Your task to perform on an android device: Open Yahoo.com Image 0: 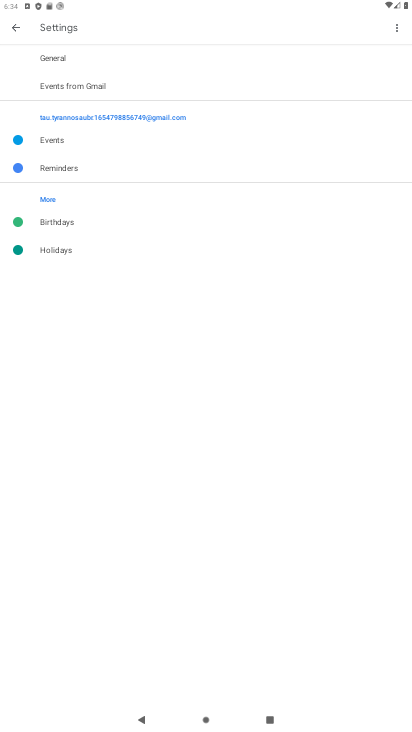
Step 0: press home button
Your task to perform on an android device: Open Yahoo.com Image 1: 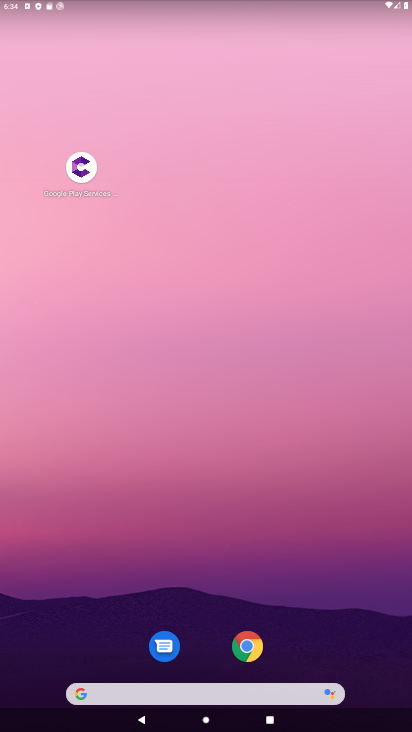
Step 1: drag from (368, 641) to (226, 94)
Your task to perform on an android device: Open Yahoo.com Image 2: 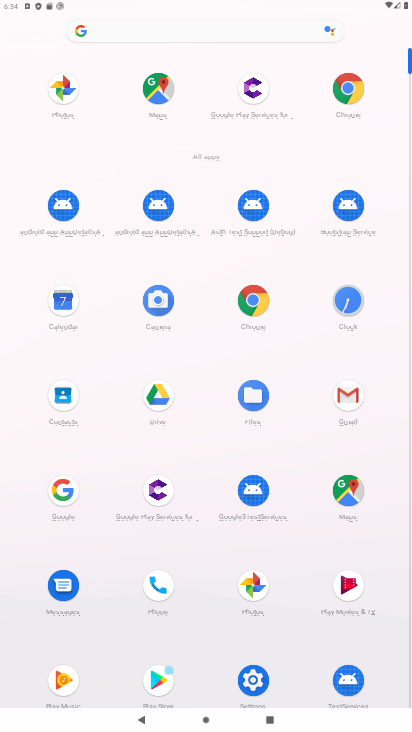
Step 2: click (53, 497)
Your task to perform on an android device: Open Yahoo.com Image 3: 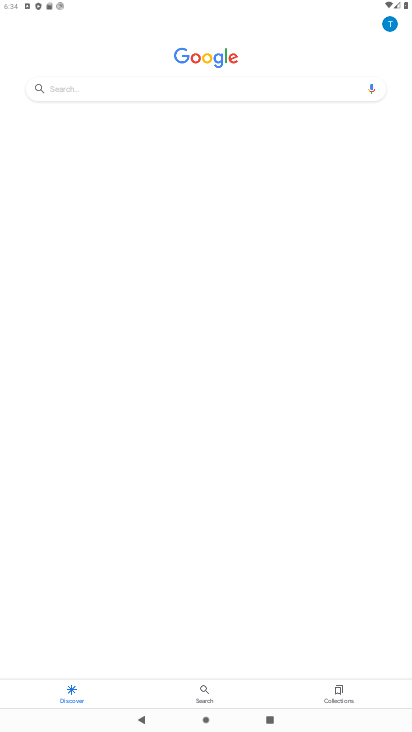
Step 3: click (141, 88)
Your task to perform on an android device: Open Yahoo.com Image 4: 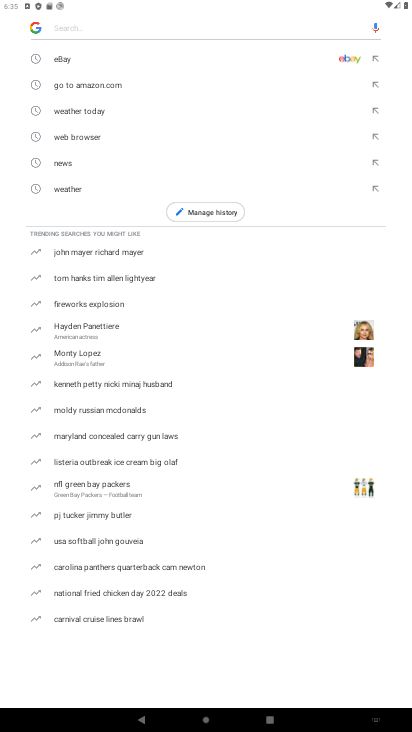
Step 4: type "Yahoo.com"
Your task to perform on an android device: Open Yahoo.com Image 5: 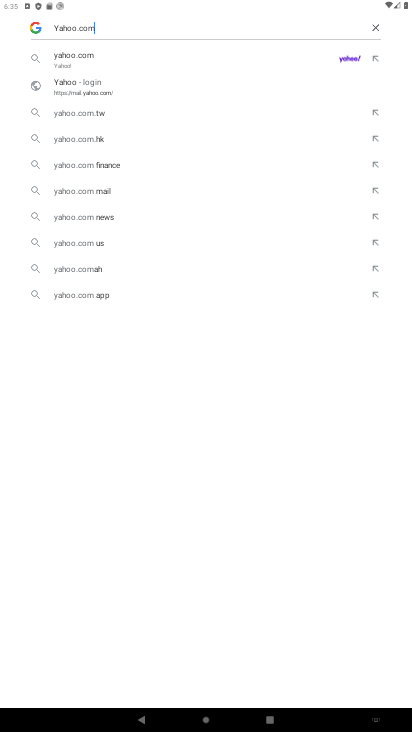
Step 5: click (94, 65)
Your task to perform on an android device: Open Yahoo.com Image 6: 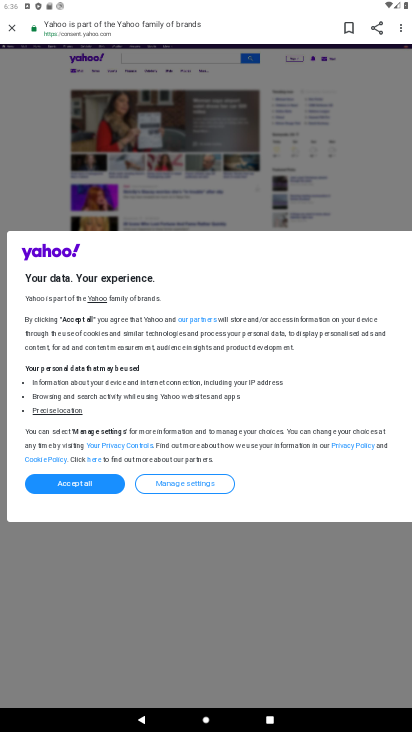
Step 6: task complete